Your task to perform on an android device: Open Google Maps Image 0: 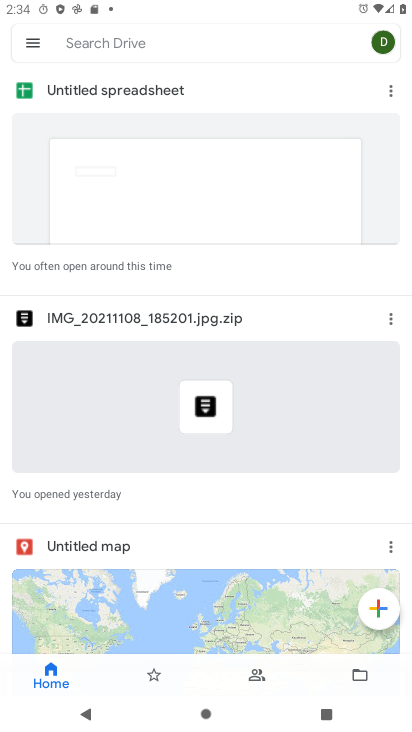
Step 0: press home button
Your task to perform on an android device: Open Google Maps Image 1: 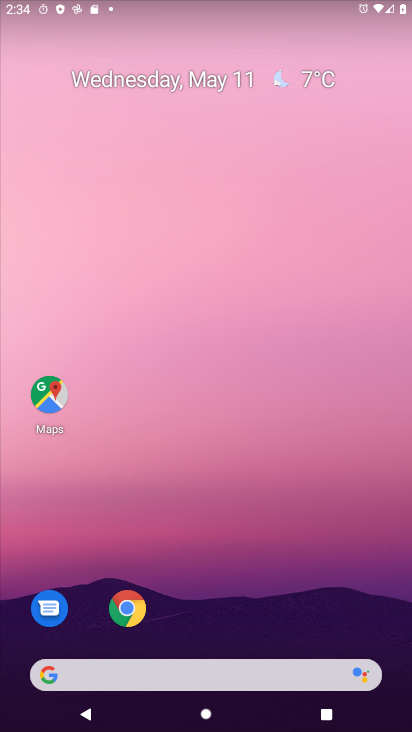
Step 1: click (58, 392)
Your task to perform on an android device: Open Google Maps Image 2: 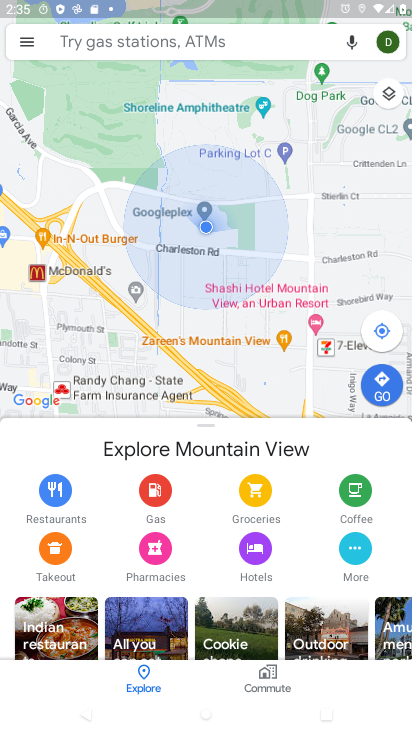
Step 2: task complete